Your task to perform on an android device: turn off location Image 0: 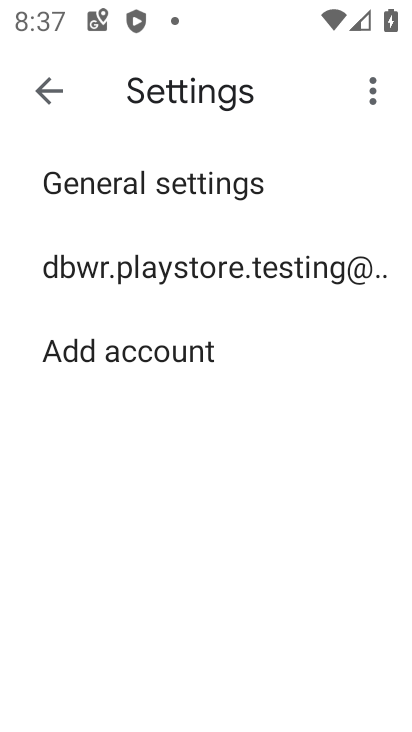
Step 0: press home button
Your task to perform on an android device: turn off location Image 1: 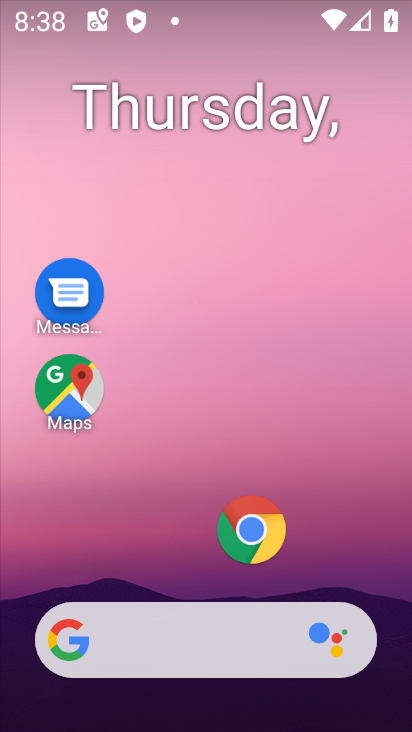
Step 1: drag from (188, 562) to (222, 6)
Your task to perform on an android device: turn off location Image 2: 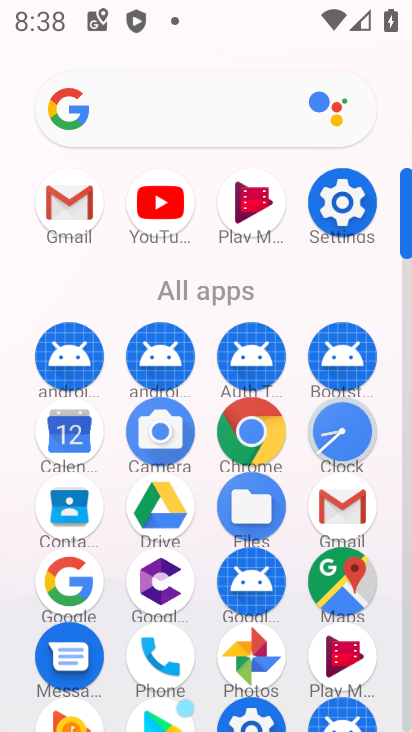
Step 2: click (340, 185)
Your task to perform on an android device: turn off location Image 3: 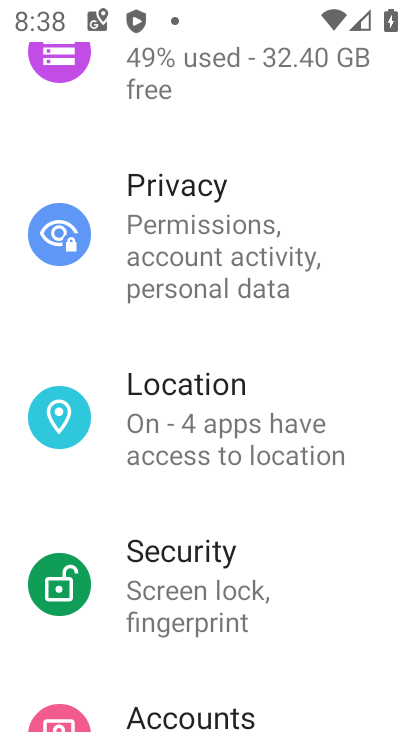
Step 3: click (232, 410)
Your task to perform on an android device: turn off location Image 4: 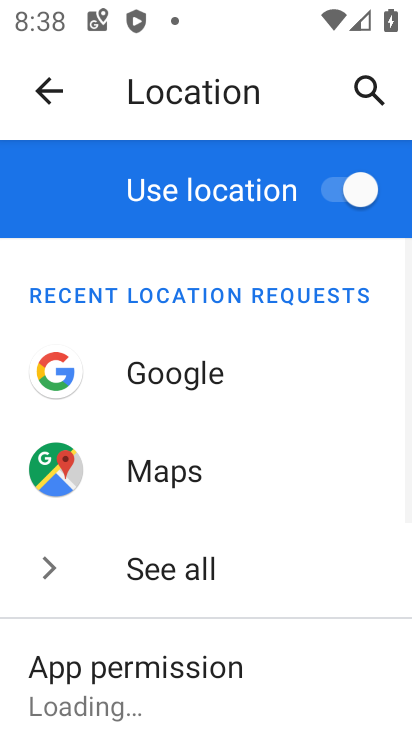
Step 4: click (357, 178)
Your task to perform on an android device: turn off location Image 5: 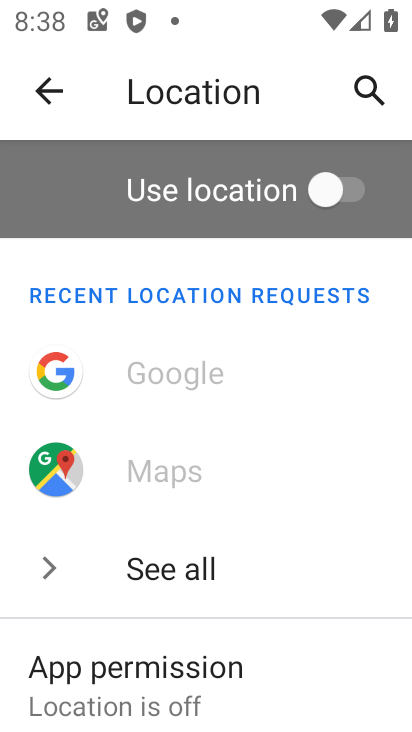
Step 5: task complete